Your task to perform on an android device: Go to Google Image 0: 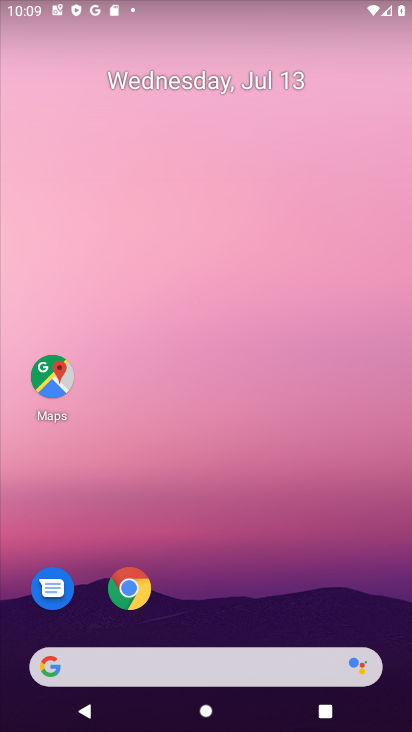
Step 0: drag from (180, 595) to (188, 79)
Your task to perform on an android device: Go to Google Image 1: 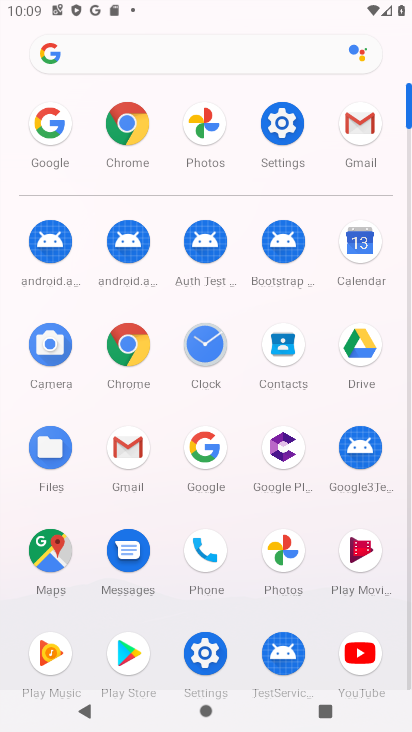
Step 1: click (203, 451)
Your task to perform on an android device: Go to Google Image 2: 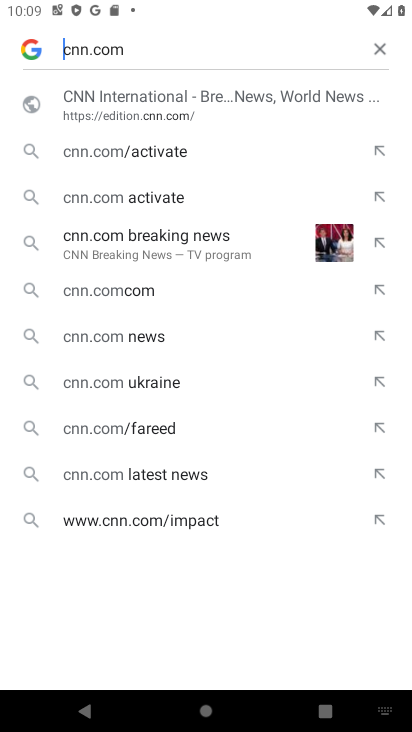
Step 2: task complete